Your task to perform on an android device: Is it going to rain tomorrow? Image 0: 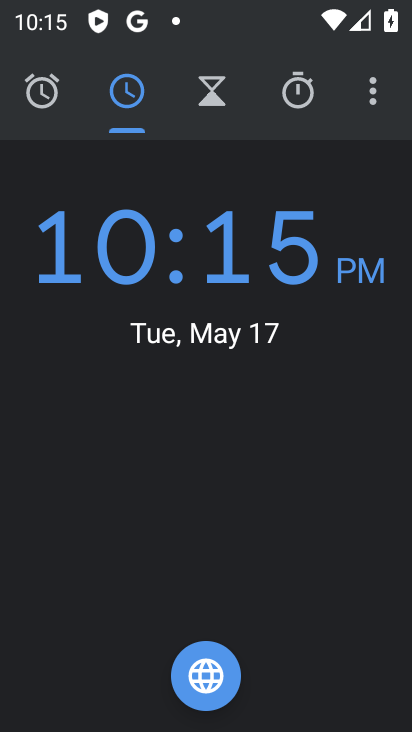
Step 0: press home button
Your task to perform on an android device: Is it going to rain tomorrow? Image 1: 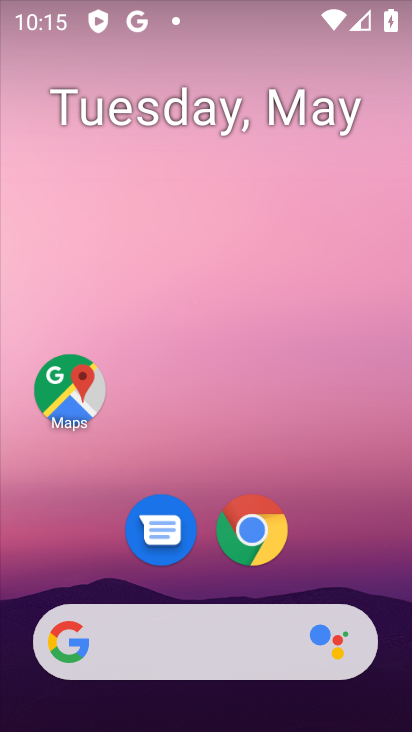
Step 1: drag from (319, 552) to (338, 158)
Your task to perform on an android device: Is it going to rain tomorrow? Image 2: 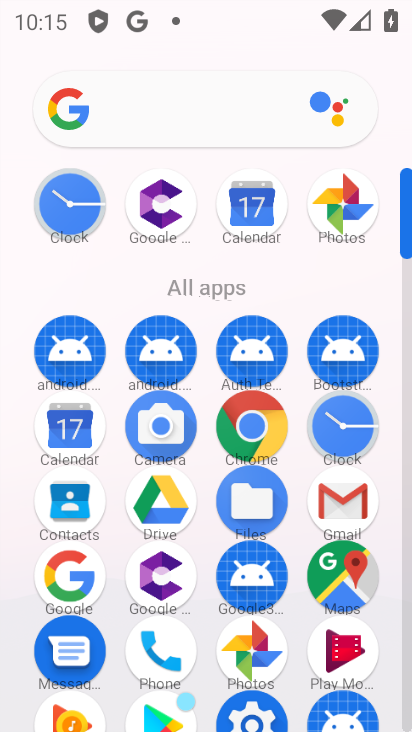
Step 2: click (63, 594)
Your task to perform on an android device: Is it going to rain tomorrow? Image 3: 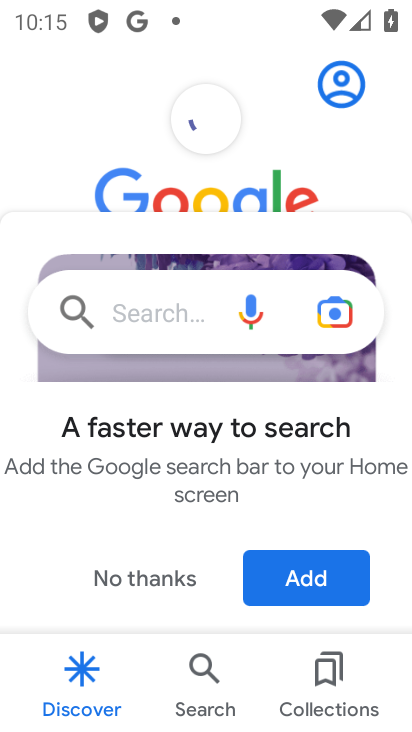
Step 3: click (173, 573)
Your task to perform on an android device: Is it going to rain tomorrow? Image 4: 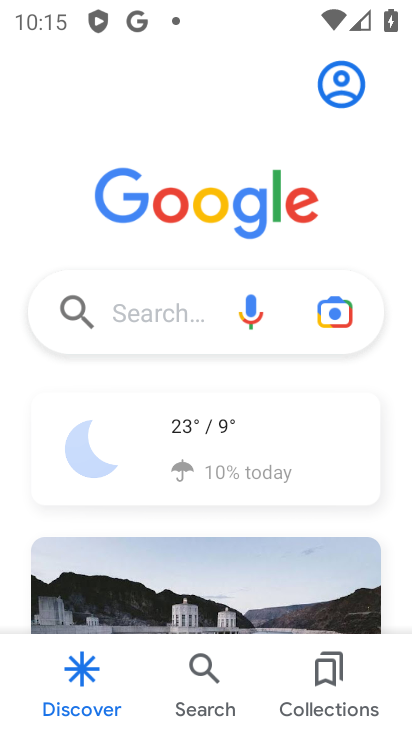
Step 4: click (211, 461)
Your task to perform on an android device: Is it going to rain tomorrow? Image 5: 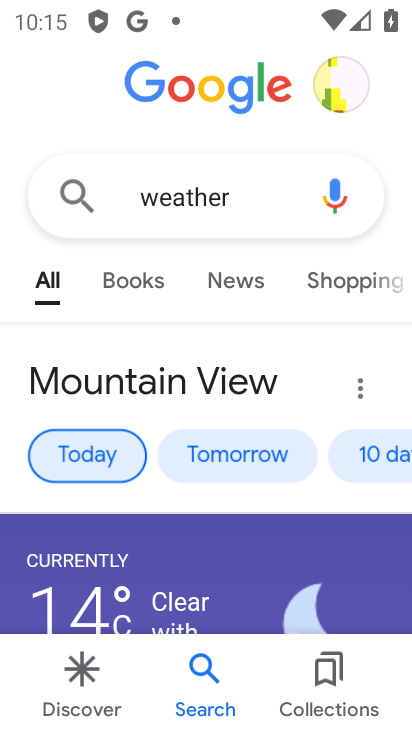
Step 5: task complete